Your task to perform on an android device: Empty the shopping cart on costco. Search for "razer deathadder" on costco, select the first entry, add it to the cart, then select checkout. Image 0: 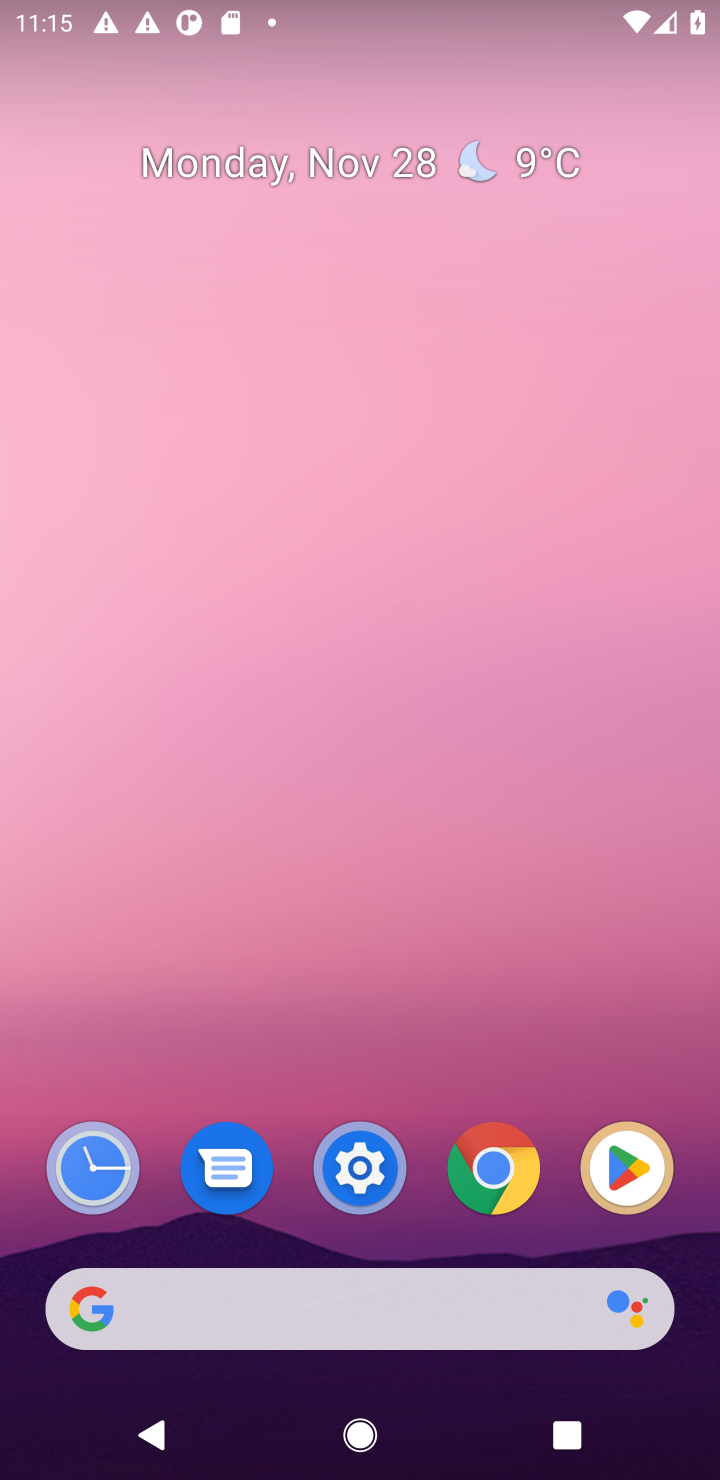
Step 0: click (274, 1303)
Your task to perform on an android device: Empty the shopping cart on costco. Search for "razer deathadder" on costco, select the first entry, add it to the cart, then select checkout. Image 1: 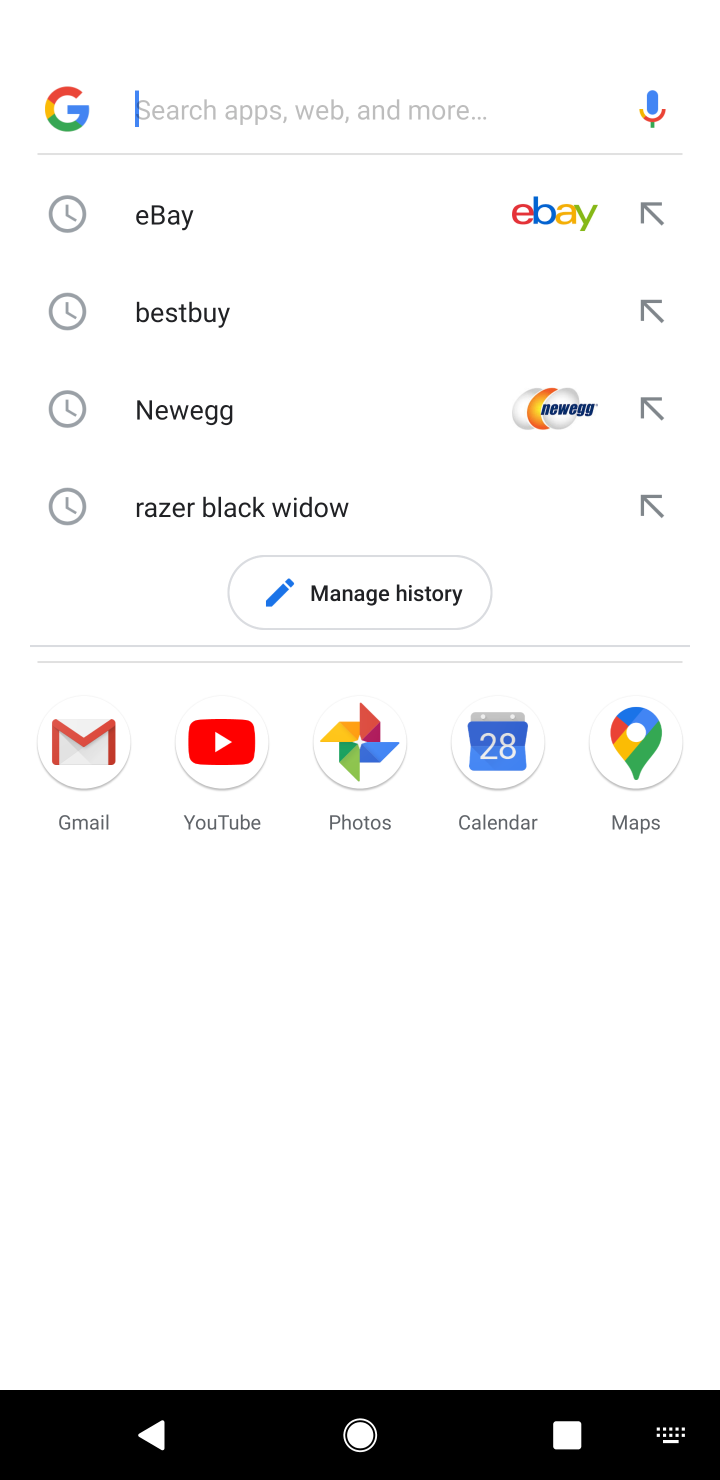
Step 1: click (279, 226)
Your task to perform on an android device: Empty the shopping cart on costco. Search for "razer deathadder" on costco, select the first entry, add it to the cart, then select checkout. Image 2: 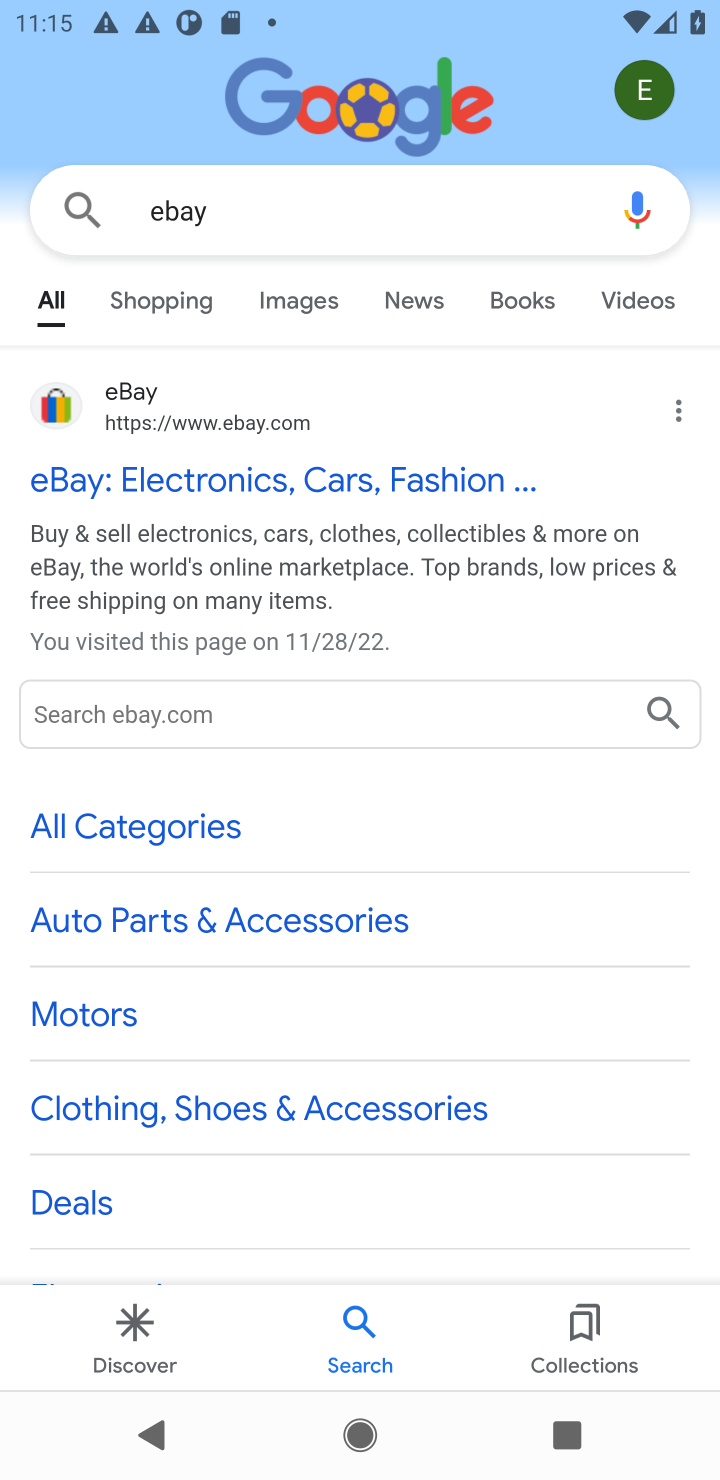
Step 2: click (108, 505)
Your task to perform on an android device: Empty the shopping cart on costco. Search for "razer deathadder" on costco, select the first entry, add it to the cart, then select checkout. Image 3: 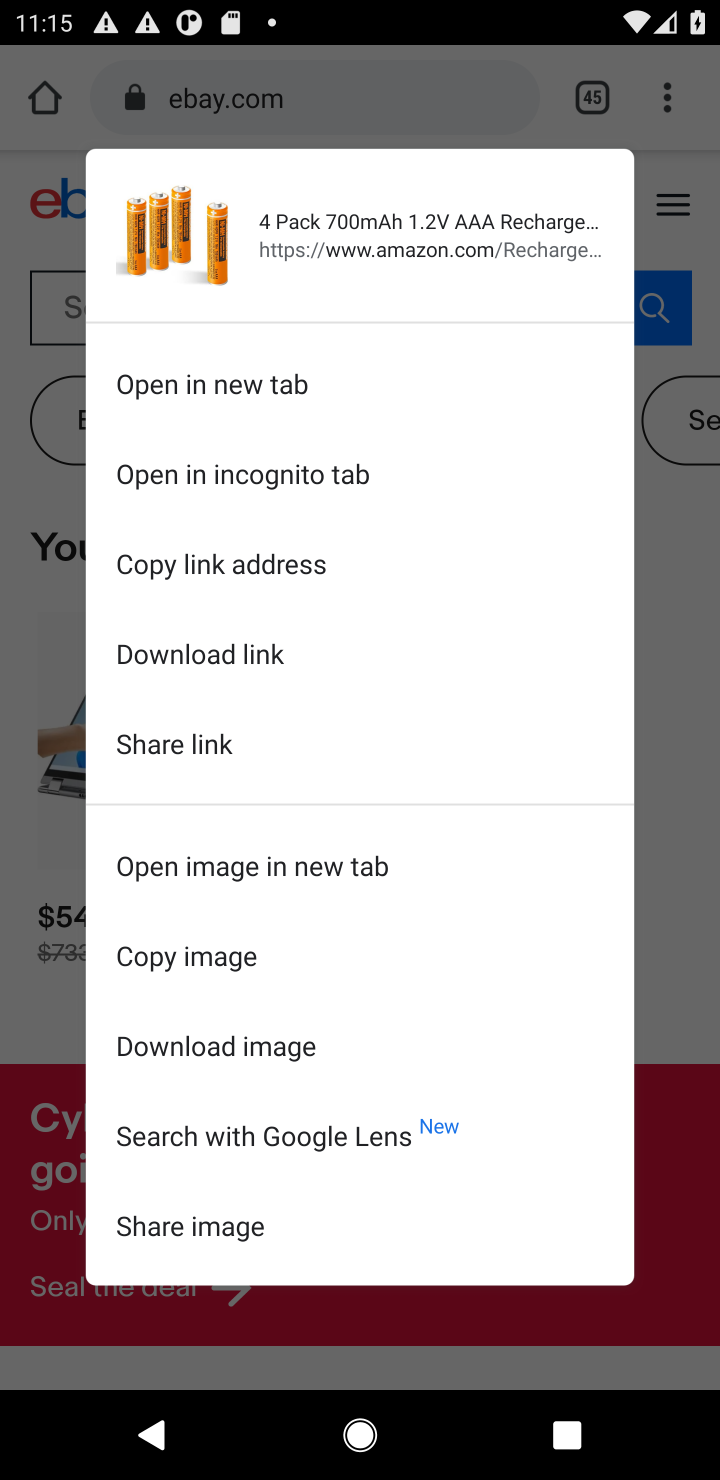
Step 3: task complete